Your task to perform on an android device: Open calendar and show me the first week of next month Image 0: 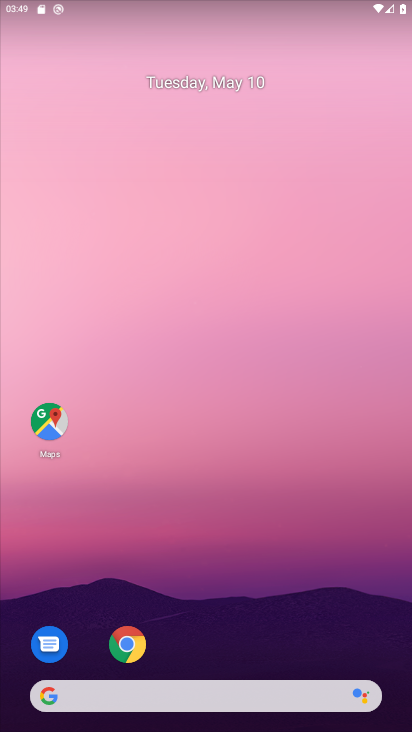
Step 0: press home button
Your task to perform on an android device: Open calendar and show me the first week of next month Image 1: 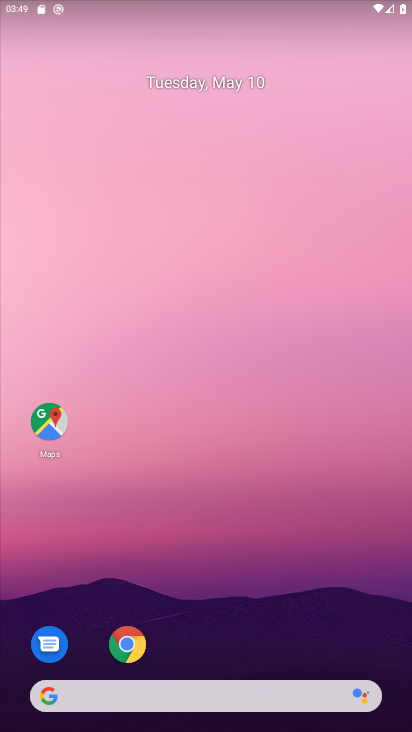
Step 1: drag from (200, 661) to (224, 160)
Your task to perform on an android device: Open calendar and show me the first week of next month Image 2: 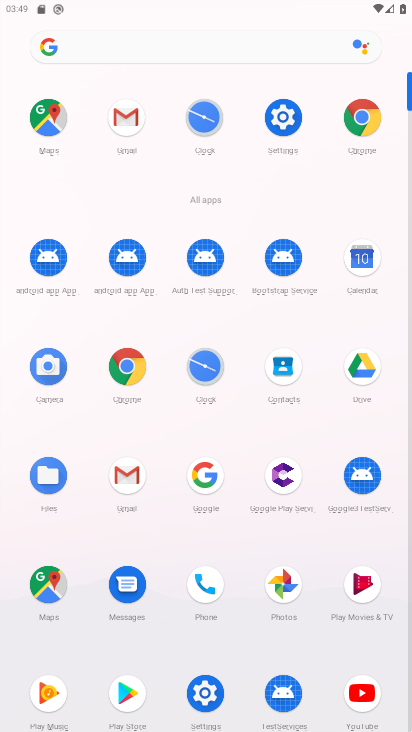
Step 2: click (358, 256)
Your task to perform on an android device: Open calendar and show me the first week of next month Image 3: 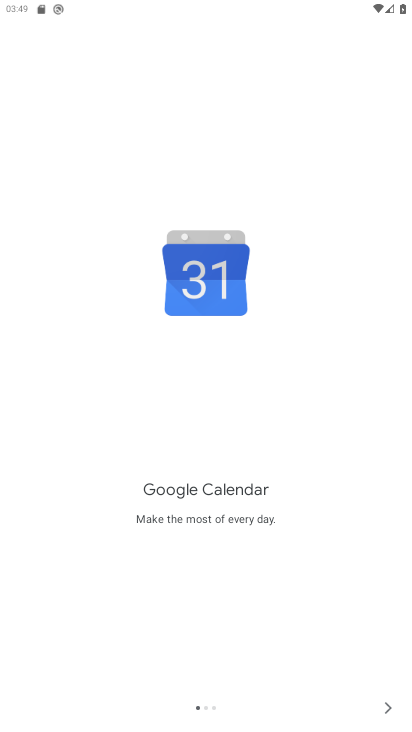
Step 3: click (381, 705)
Your task to perform on an android device: Open calendar and show me the first week of next month Image 4: 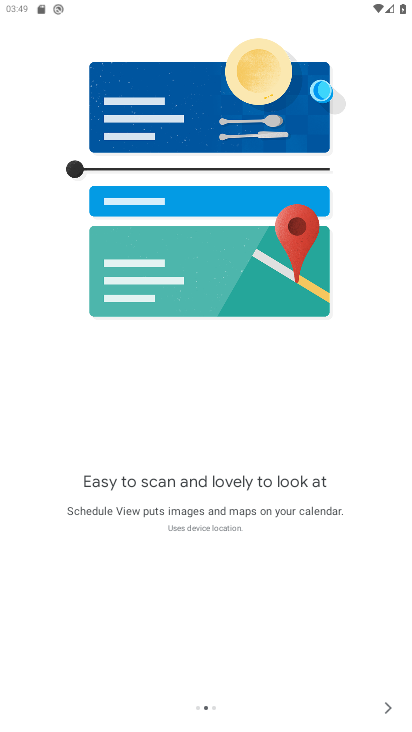
Step 4: click (381, 705)
Your task to perform on an android device: Open calendar and show me the first week of next month Image 5: 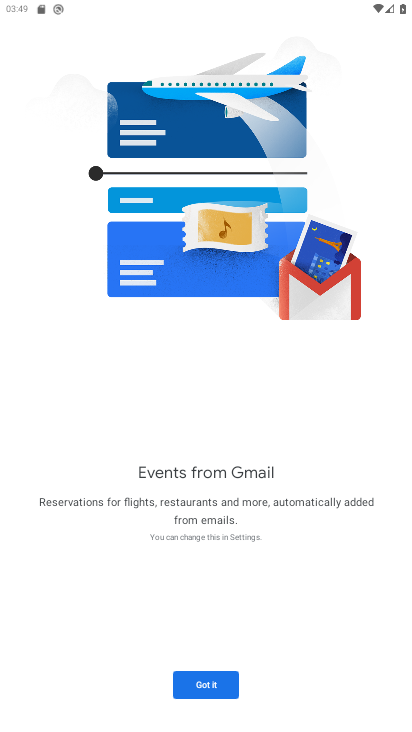
Step 5: click (381, 705)
Your task to perform on an android device: Open calendar and show me the first week of next month Image 6: 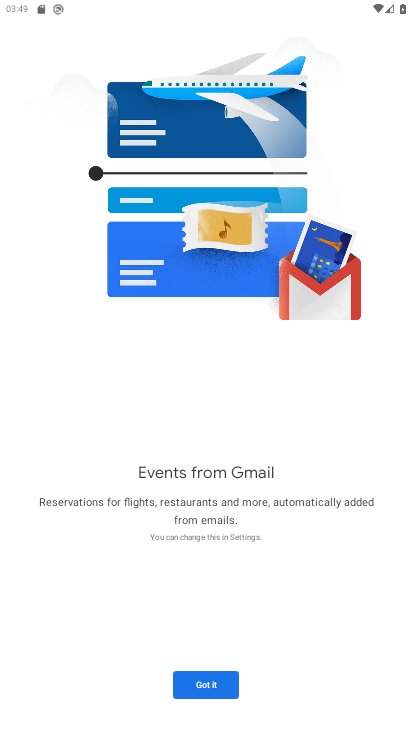
Step 6: click (209, 682)
Your task to perform on an android device: Open calendar and show me the first week of next month Image 7: 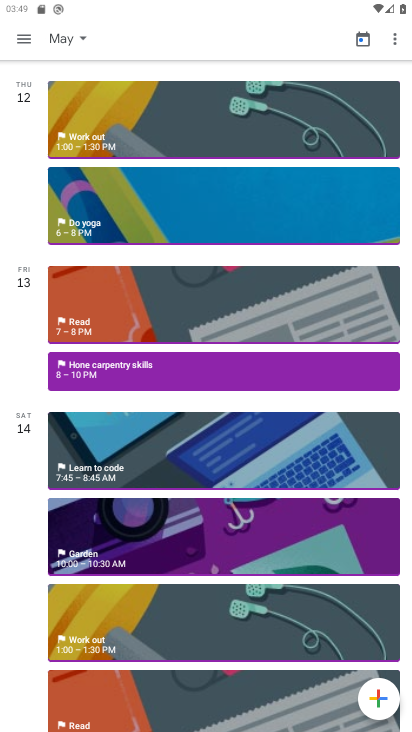
Step 7: click (22, 36)
Your task to perform on an android device: Open calendar and show me the first week of next month Image 8: 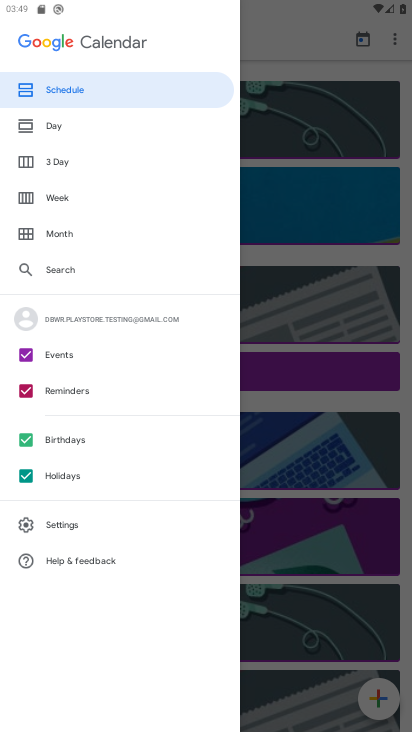
Step 8: click (46, 196)
Your task to perform on an android device: Open calendar and show me the first week of next month Image 9: 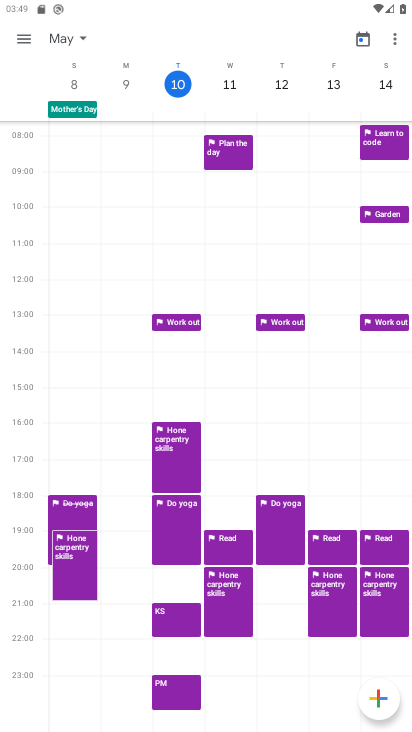
Step 9: drag from (384, 92) to (26, 96)
Your task to perform on an android device: Open calendar and show me the first week of next month Image 10: 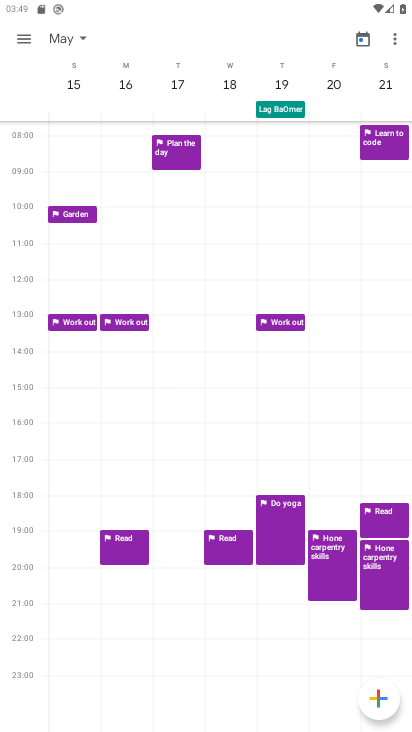
Step 10: drag from (387, 82) to (9, 87)
Your task to perform on an android device: Open calendar and show me the first week of next month Image 11: 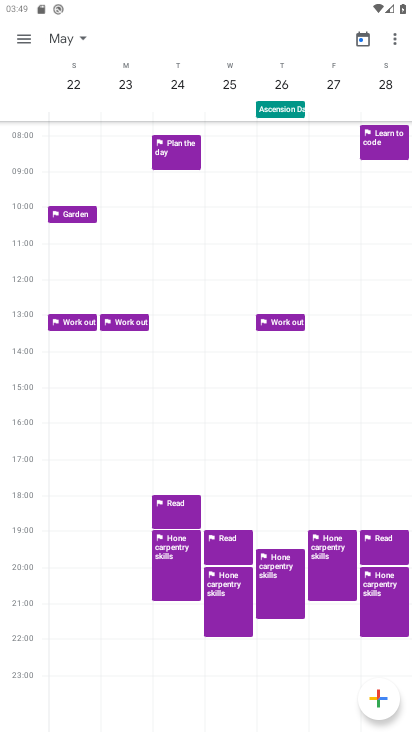
Step 11: drag from (386, 80) to (75, 74)
Your task to perform on an android device: Open calendar and show me the first week of next month Image 12: 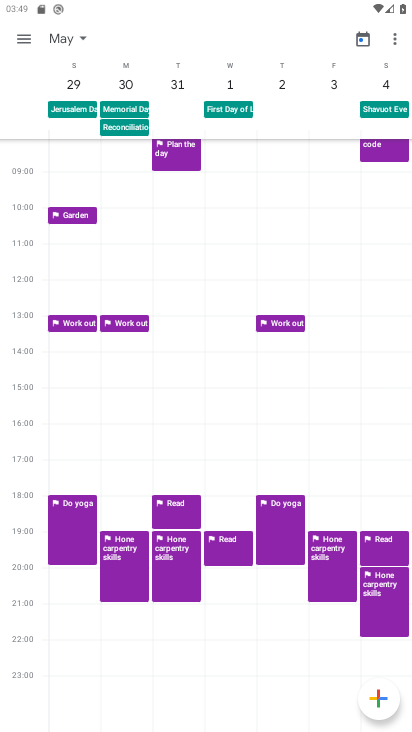
Step 12: click (221, 75)
Your task to perform on an android device: Open calendar and show me the first week of next month Image 13: 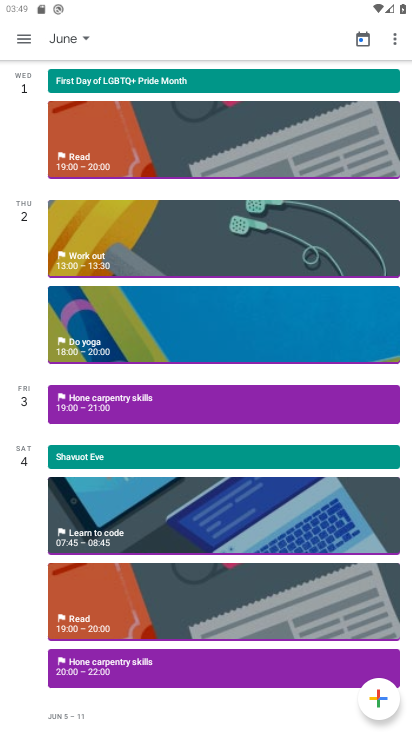
Step 13: task complete